Your task to perform on an android device: see tabs open on other devices in the chrome app Image 0: 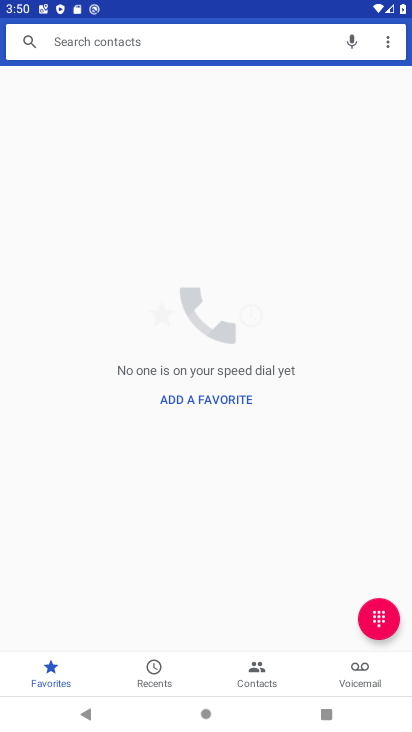
Step 0: press home button
Your task to perform on an android device: see tabs open on other devices in the chrome app Image 1: 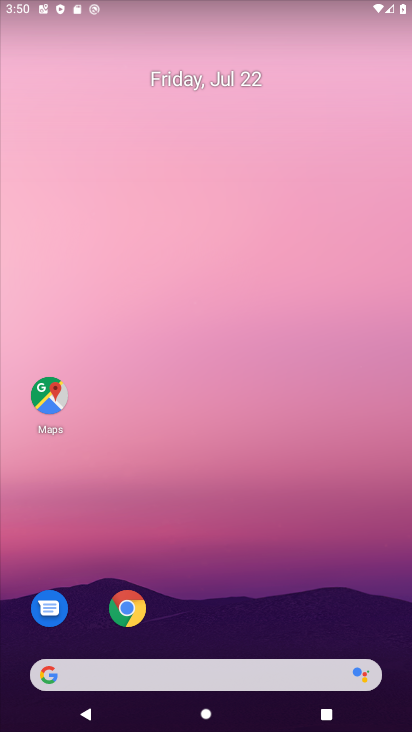
Step 1: drag from (219, 724) to (223, 104)
Your task to perform on an android device: see tabs open on other devices in the chrome app Image 2: 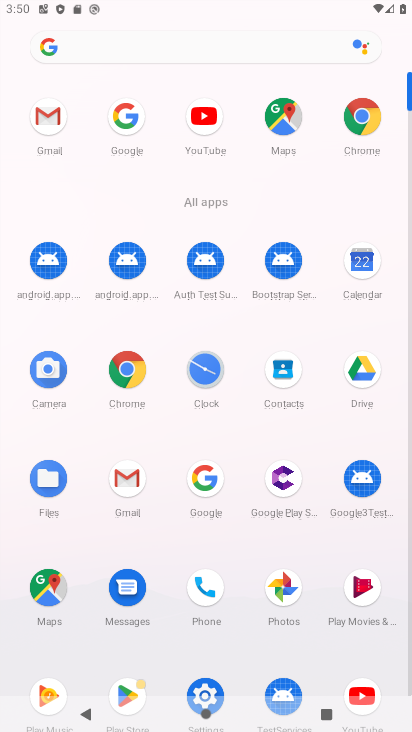
Step 2: click (127, 369)
Your task to perform on an android device: see tabs open on other devices in the chrome app Image 3: 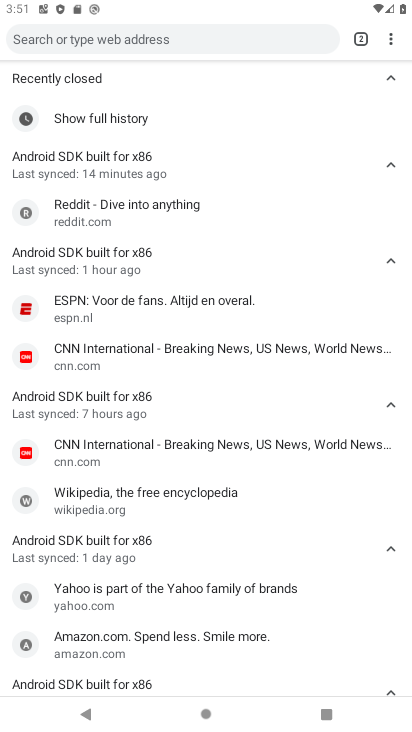
Step 3: task complete